Your task to perform on an android device: turn vacation reply on in the gmail app Image 0: 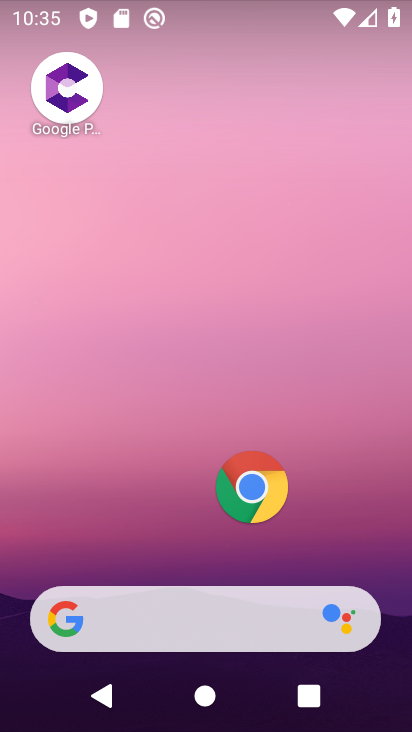
Step 0: drag from (152, 561) to (245, 27)
Your task to perform on an android device: turn vacation reply on in the gmail app Image 1: 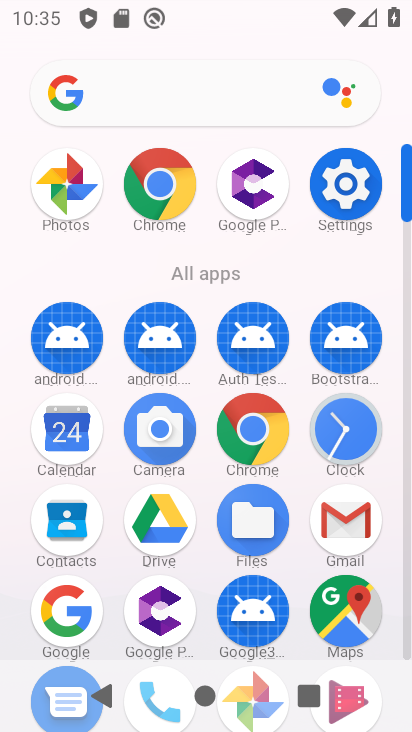
Step 1: click (351, 528)
Your task to perform on an android device: turn vacation reply on in the gmail app Image 2: 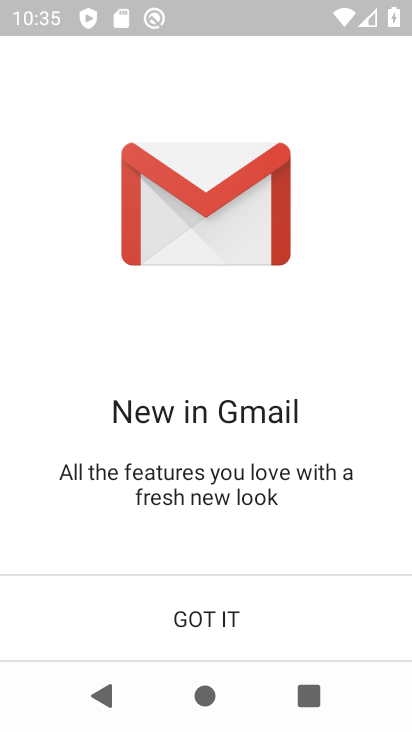
Step 2: click (244, 615)
Your task to perform on an android device: turn vacation reply on in the gmail app Image 3: 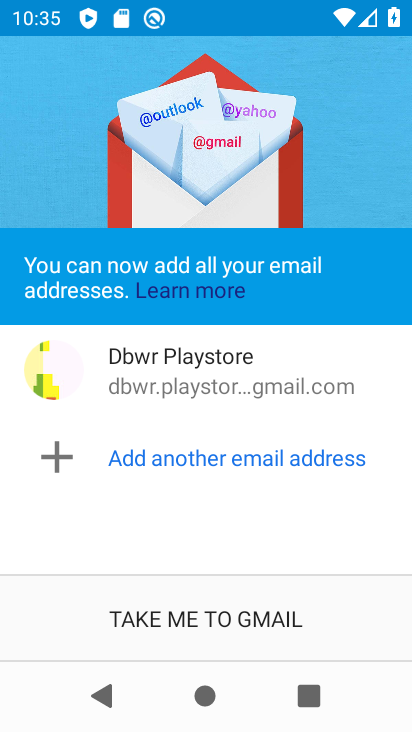
Step 3: click (244, 615)
Your task to perform on an android device: turn vacation reply on in the gmail app Image 4: 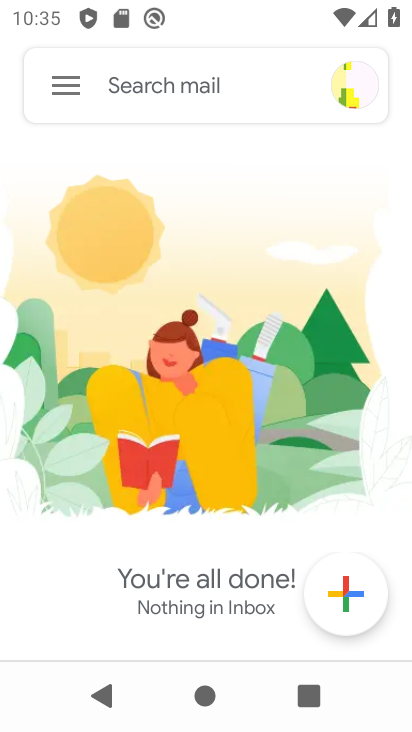
Step 4: click (65, 85)
Your task to perform on an android device: turn vacation reply on in the gmail app Image 5: 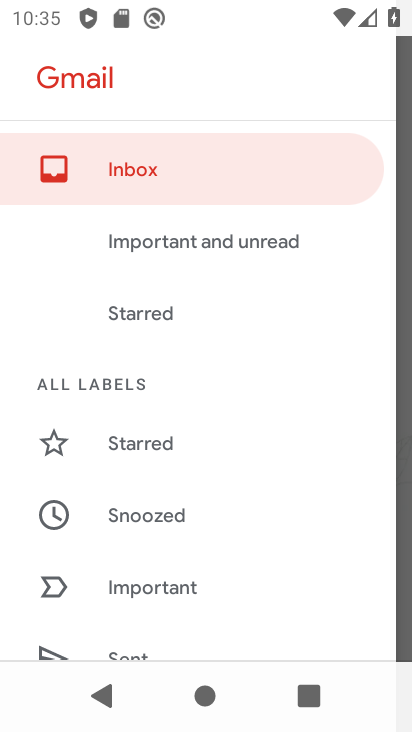
Step 5: drag from (125, 591) to (186, 193)
Your task to perform on an android device: turn vacation reply on in the gmail app Image 6: 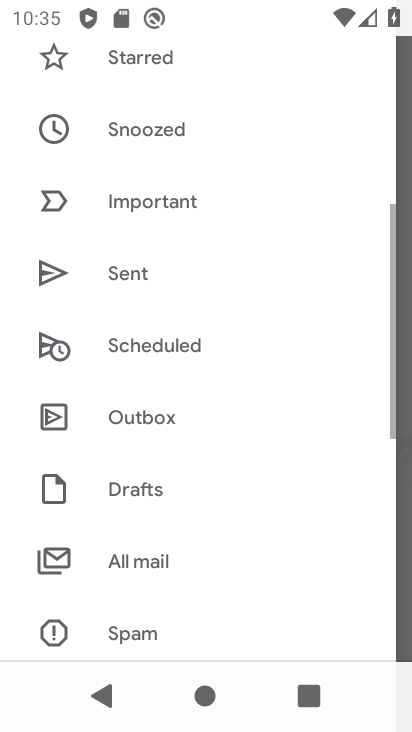
Step 6: drag from (156, 576) to (233, 262)
Your task to perform on an android device: turn vacation reply on in the gmail app Image 7: 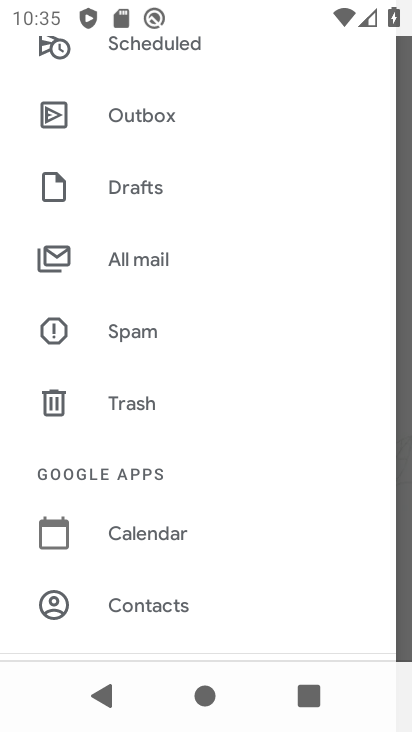
Step 7: drag from (164, 579) to (269, 66)
Your task to perform on an android device: turn vacation reply on in the gmail app Image 8: 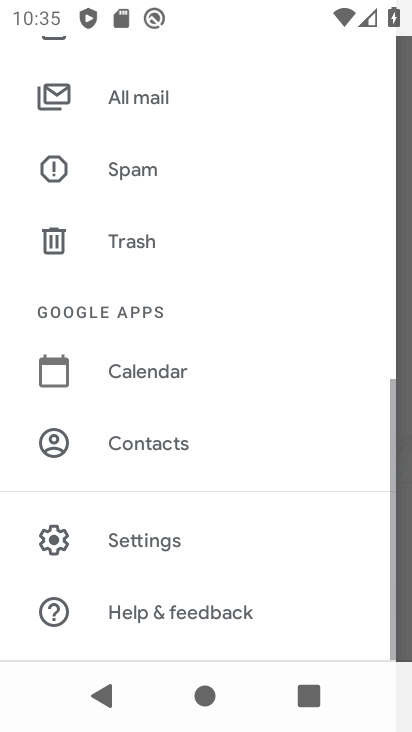
Step 8: click (150, 539)
Your task to perform on an android device: turn vacation reply on in the gmail app Image 9: 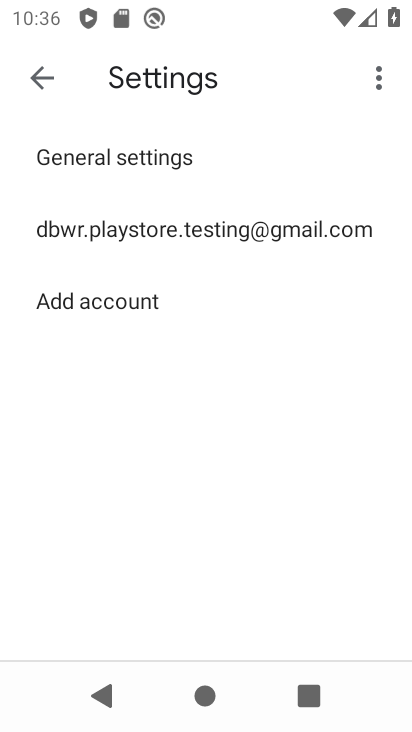
Step 9: click (121, 227)
Your task to perform on an android device: turn vacation reply on in the gmail app Image 10: 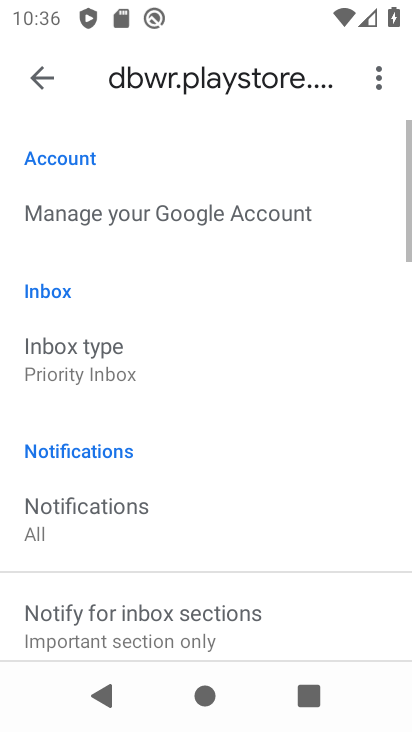
Step 10: drag from (139, 532) to (230, 209)
Your task to perform on an android device: turn vacation reply on in the gmail app Image 11: 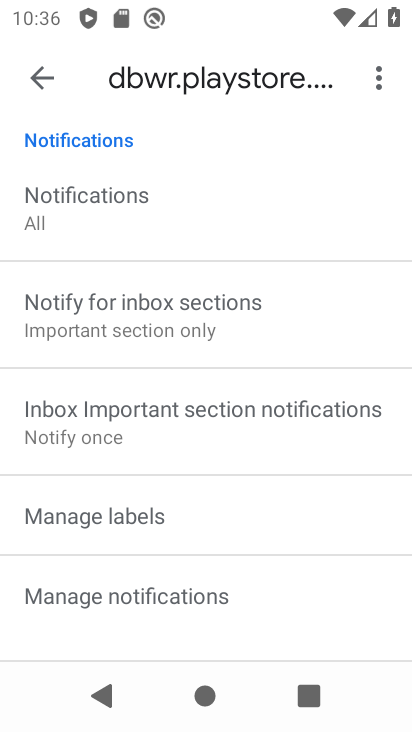
Step 11: drag from (157, 563) to (279, 10)
Your task to perform on an android device: turn vacation reply on in the gmail app Image 12: 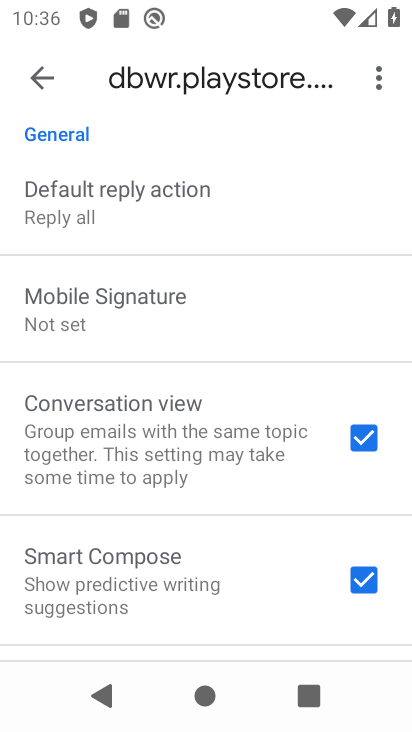
Step 12: drag from (140, 556) to (192, 126)
Your task to perform on an android device: turn vacation reply on in the gmail app Image 13: 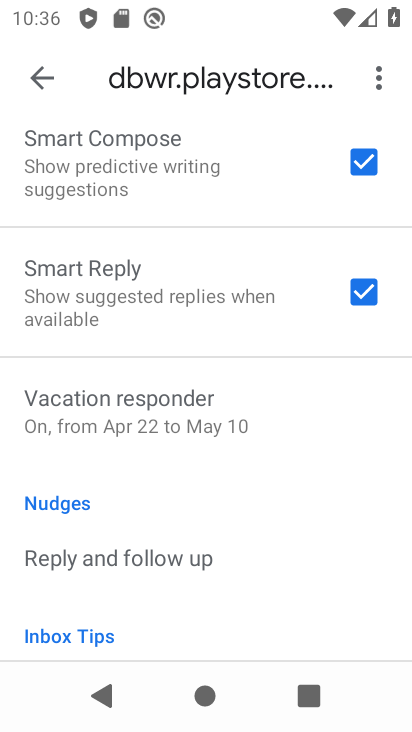
Step 13: click (171, 406)
Your task to perform on an android device: turn vacation reply on in the gmail app Image 14: 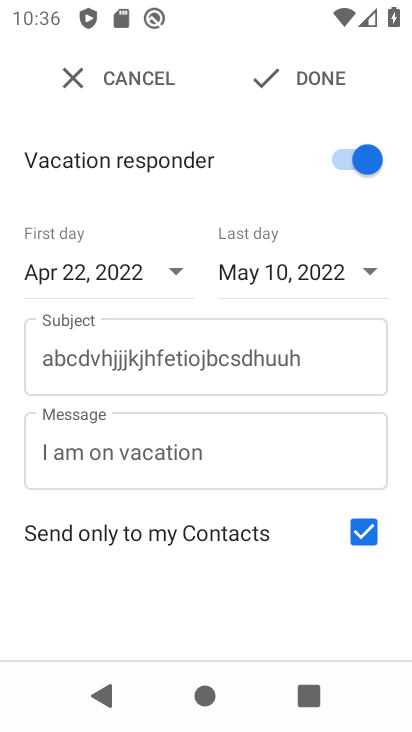
Step 14: task complete